Your task to perform on an android device: Search for razer naga on target, select the first entry, add it to the cart, then select checkout. Image 0: 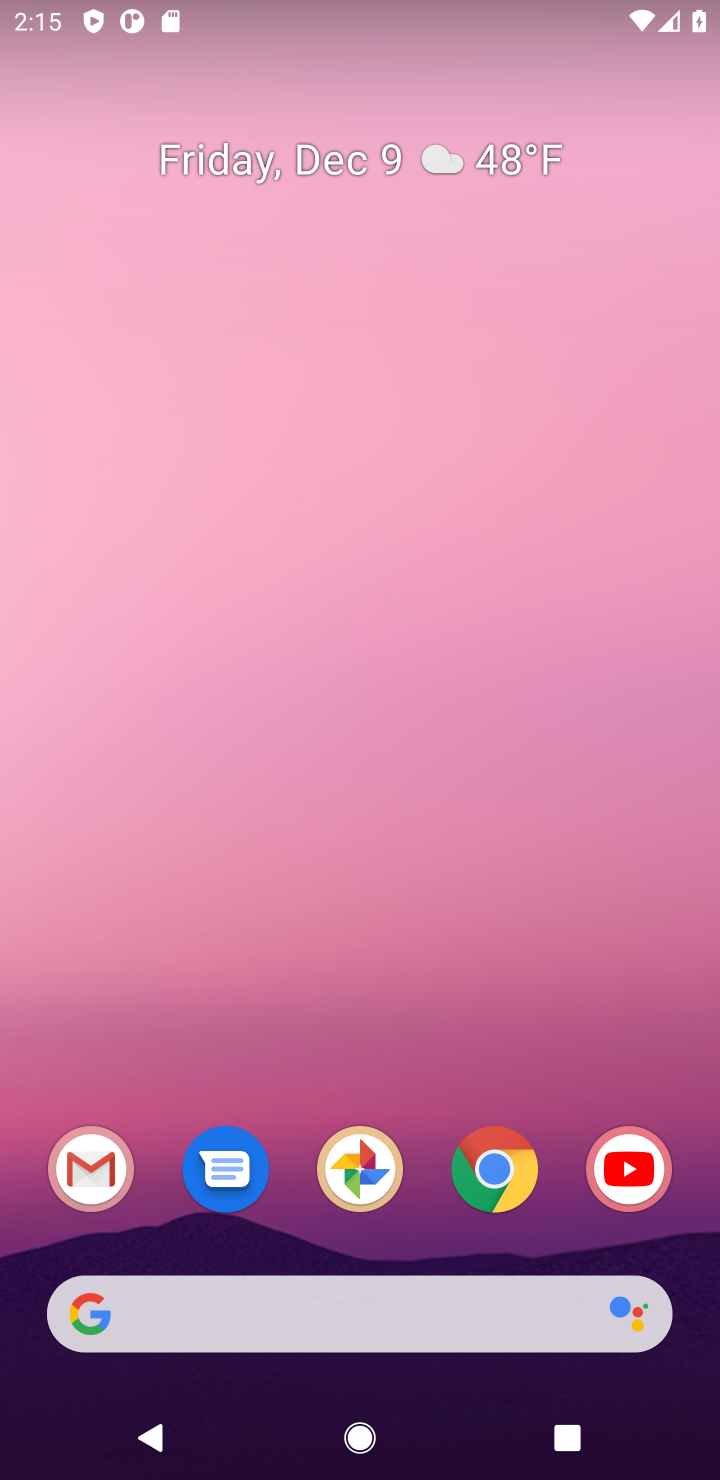
Step 0: click (495, 1162)
Your task to perform on an android device: Search for razer naga on target, select the first entry, add it to the cart, then select checkout. Image 1: 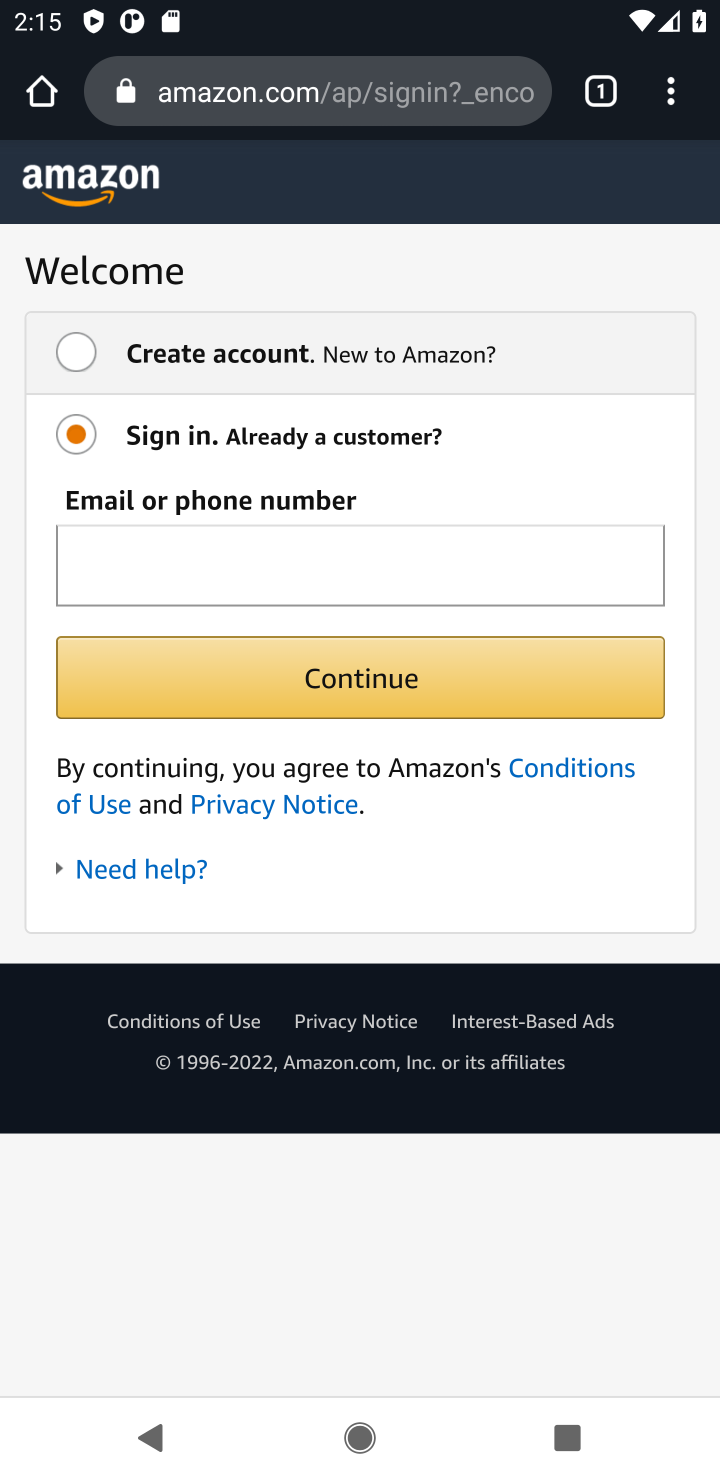
Step 1: click (266, 85)
Your task to perform on an android device: Search for razer naga on target, select the first entry, add it to the cart, then select checkout. Image 2: 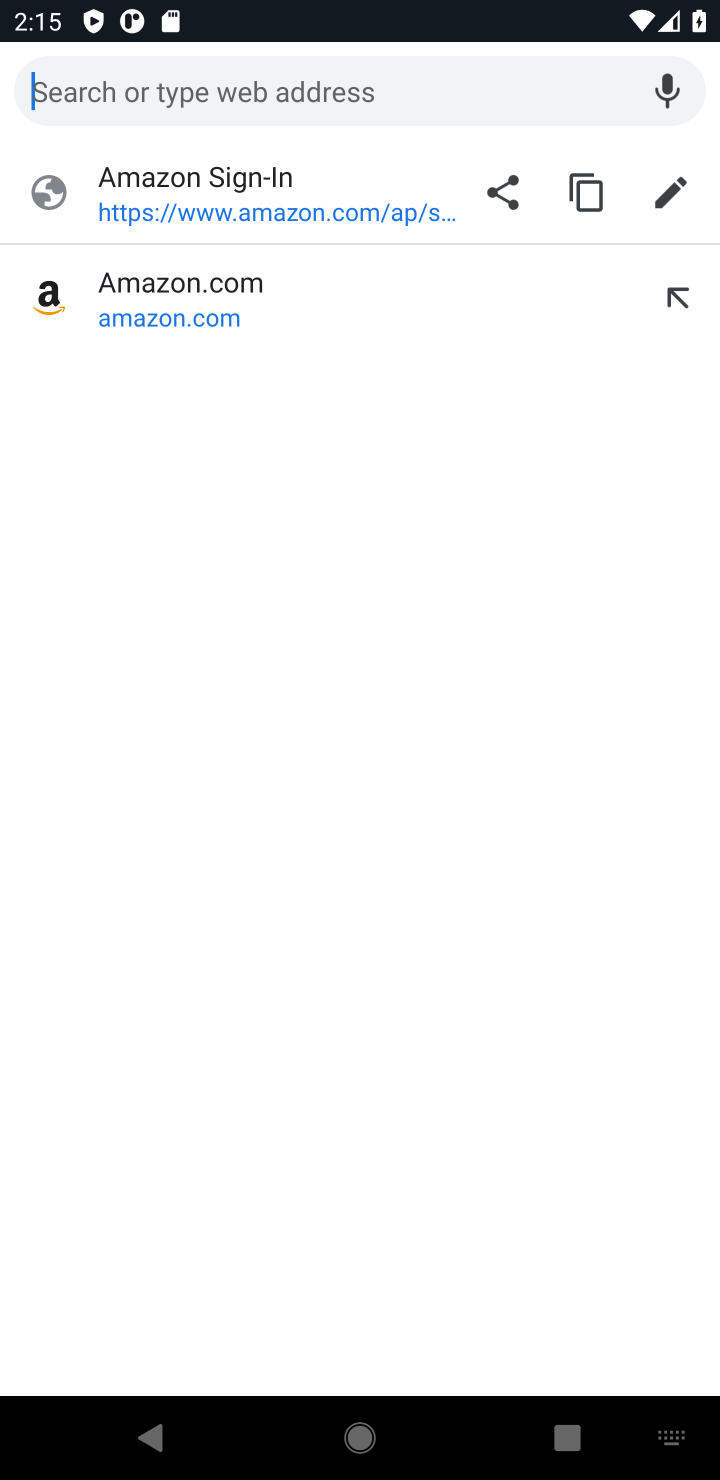
Step 2: press enter
Your task to perform on an android device: Search for razer naga on target, select the first entry, add it to the cart, then select checkout. Image 3: 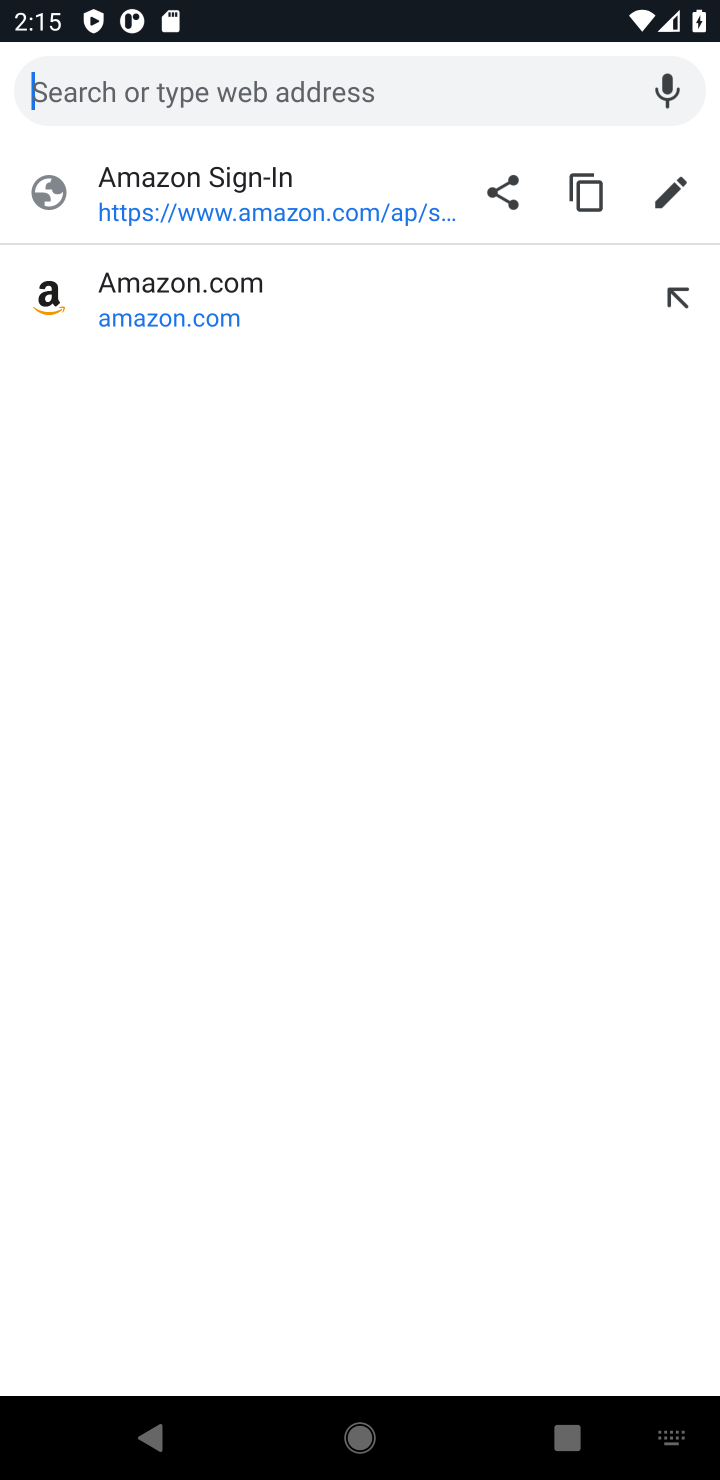
Step 3: type "target"
Your task to perform on an android device: Search for razer naga on target, select the first entry, add it to the cart, then select checkout. Image 4: 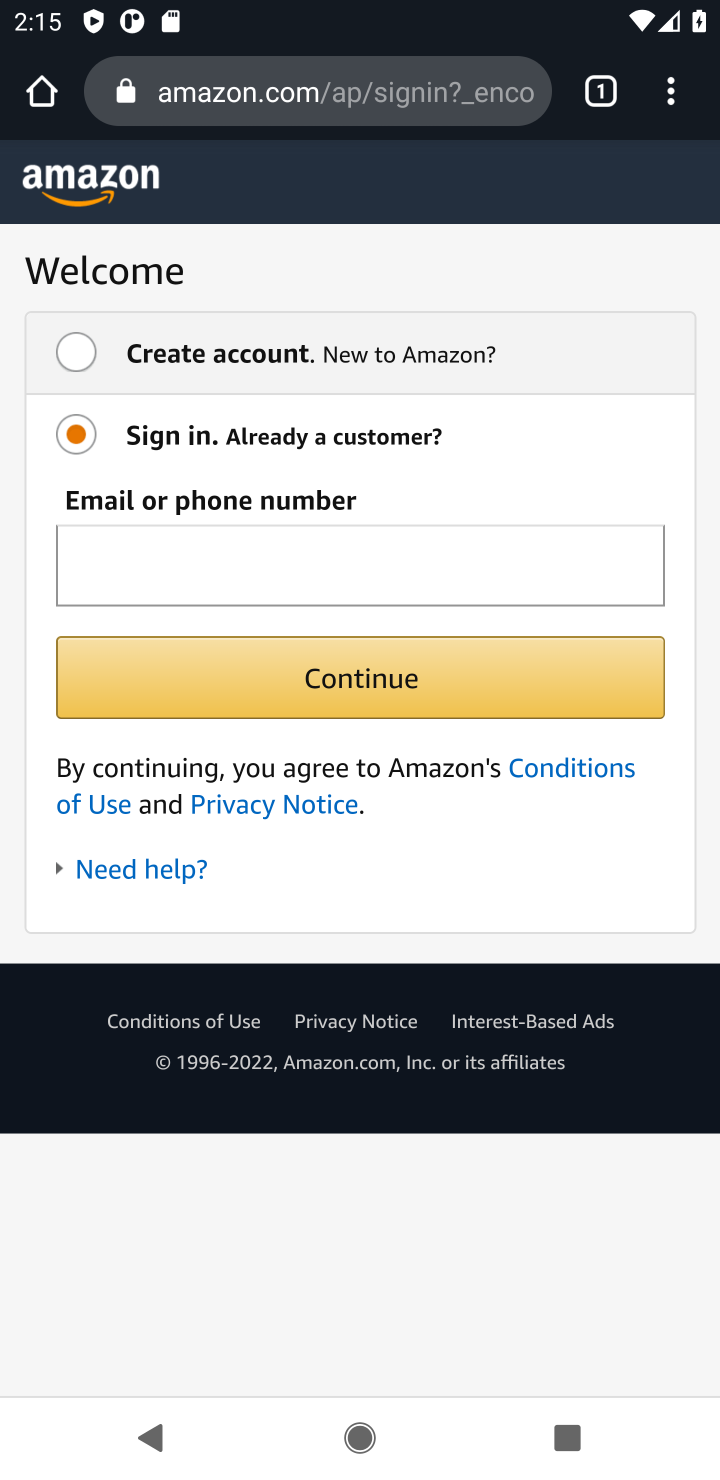
Step 4: click (35, 96)
Your task to perform on an android device: Search for razer naga on target, select the first entry, add it to the cart, then select checkout. Image 5: 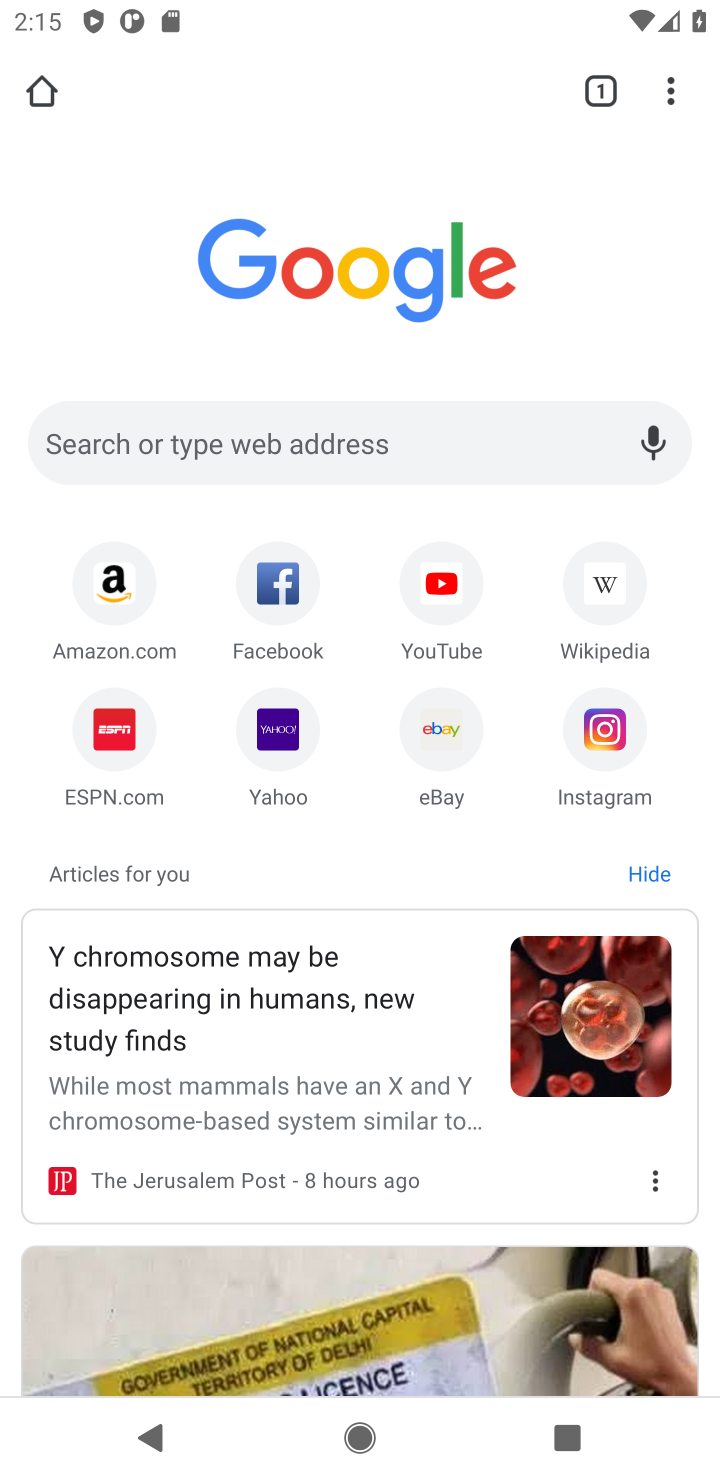
Step 5: click (501, 434)
Your task to perform on an android device: Search for razer naga on target, select the first entry, add it to the cart, then select checkout. Image 6: 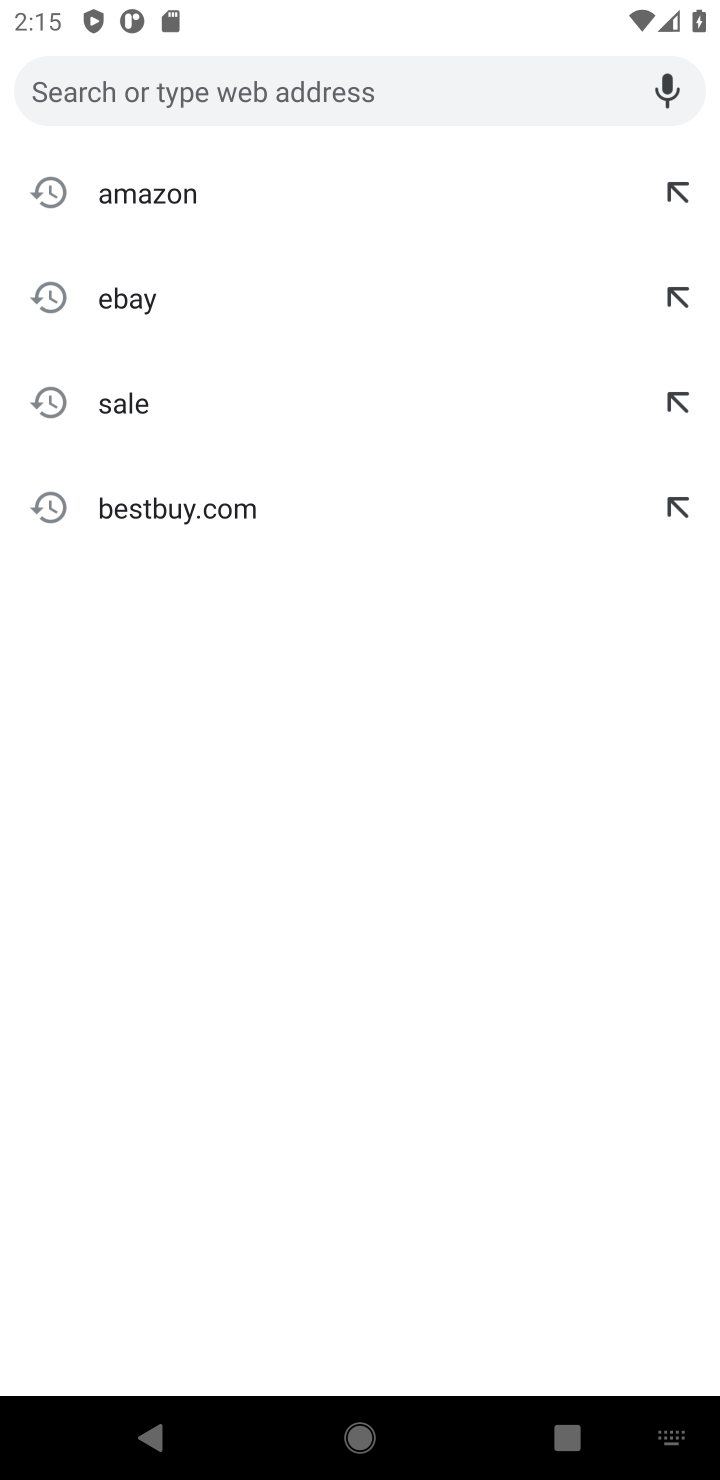
Step 6: press enter
Your task to perform on an android device: Search for razer naga on target, select the first entry, add it to the cart, then select checkout. Image 7: 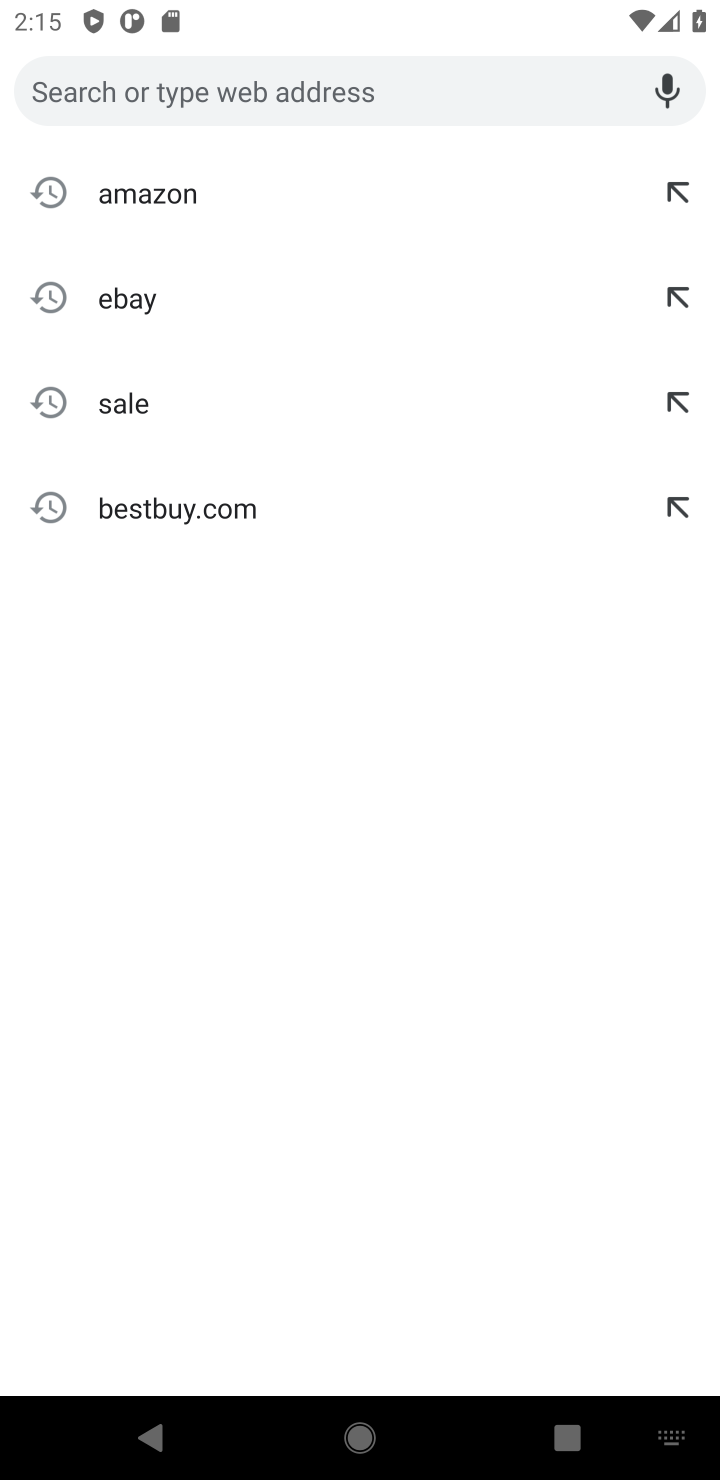
Step 7: type "target"
Your task to perform on an android device: Search for razer naga on target, select the first entry, add it to the cart, then select checkout. Image 8: 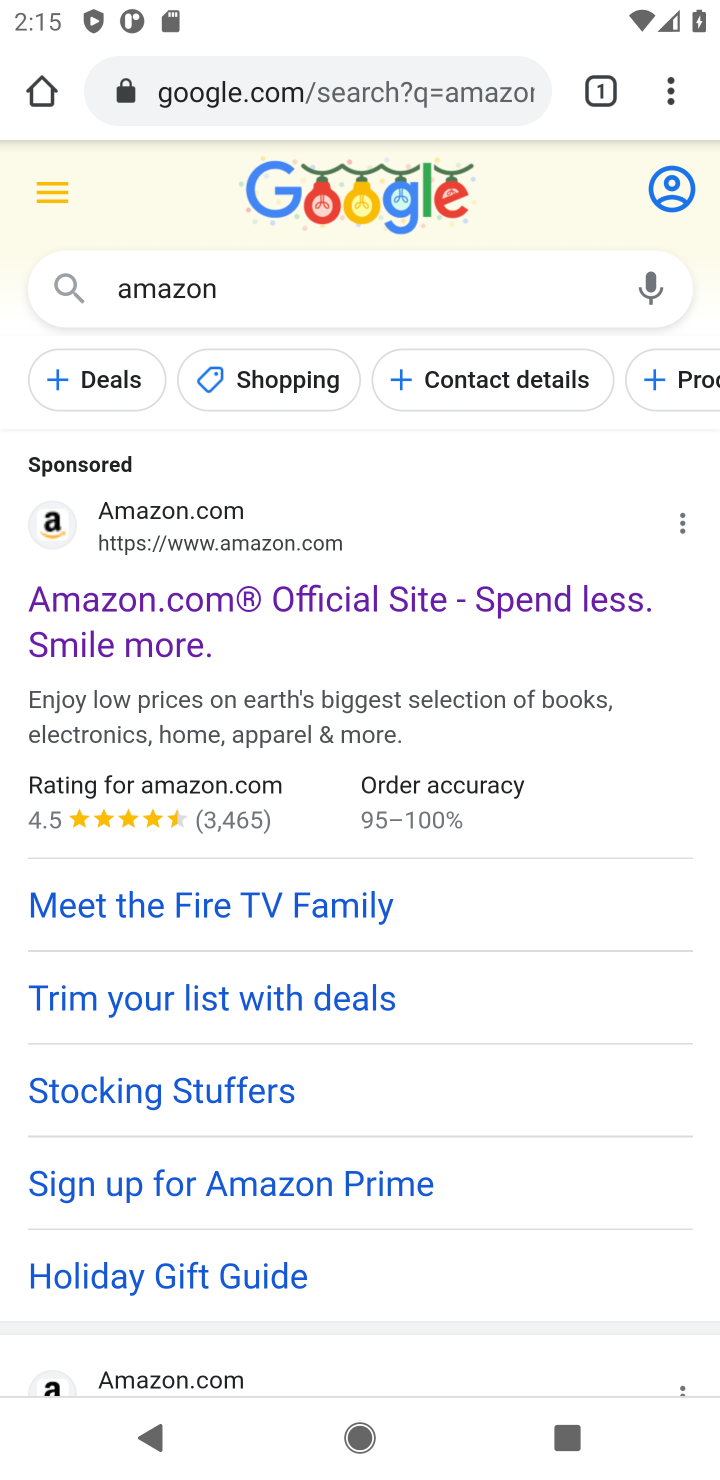
Step 8: click (356, 97)
Your task to perform on an android device: Search for razer naga on target, select the first entry, add it to the cart, then select checkout. Image 9: 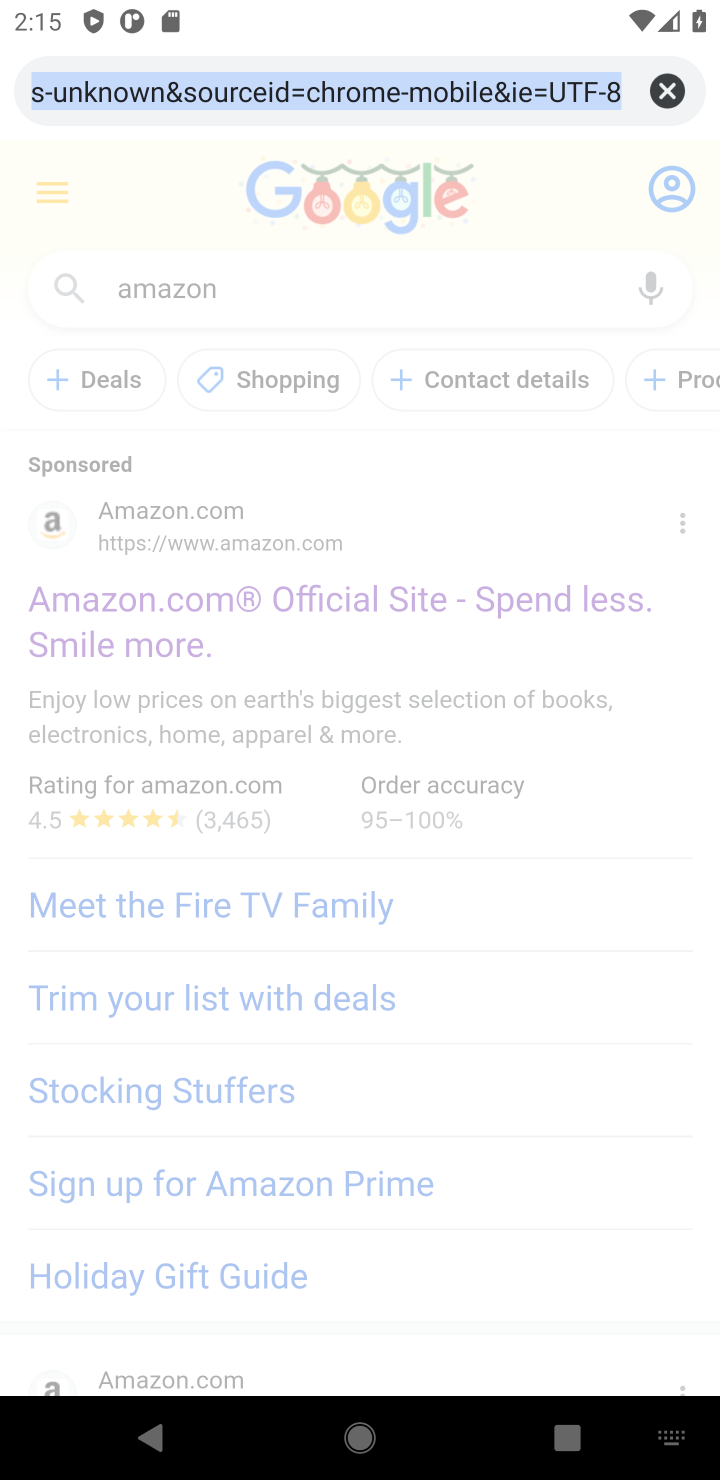
Step 9: press enter
Your task to perform on an android device: Search for razer naga on target, select the first entry, add it to the cart, then select checkout. Image 10: 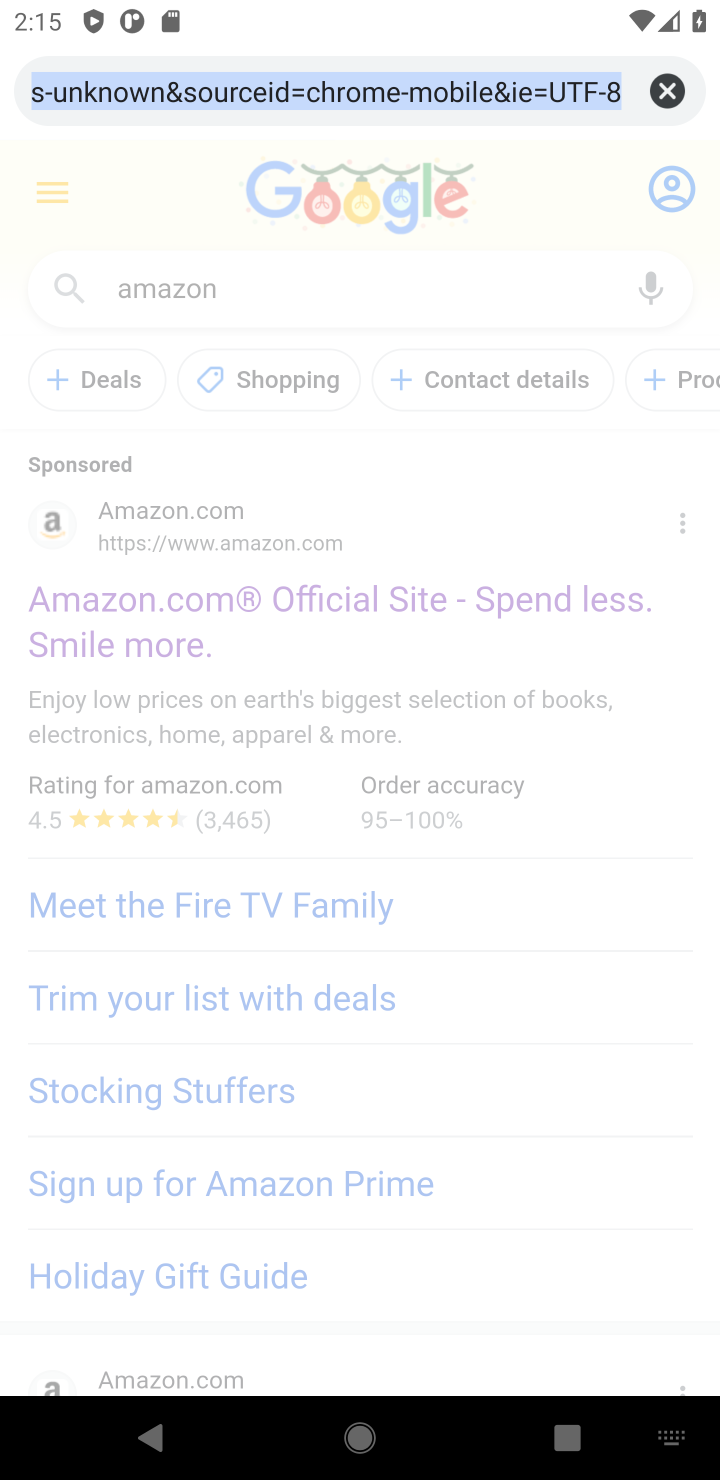
Step 10: type "target"
Your task to perform on an android device: Search for razer naga on target, select the first entry, add it to the cart, then select checkout. Image 11: 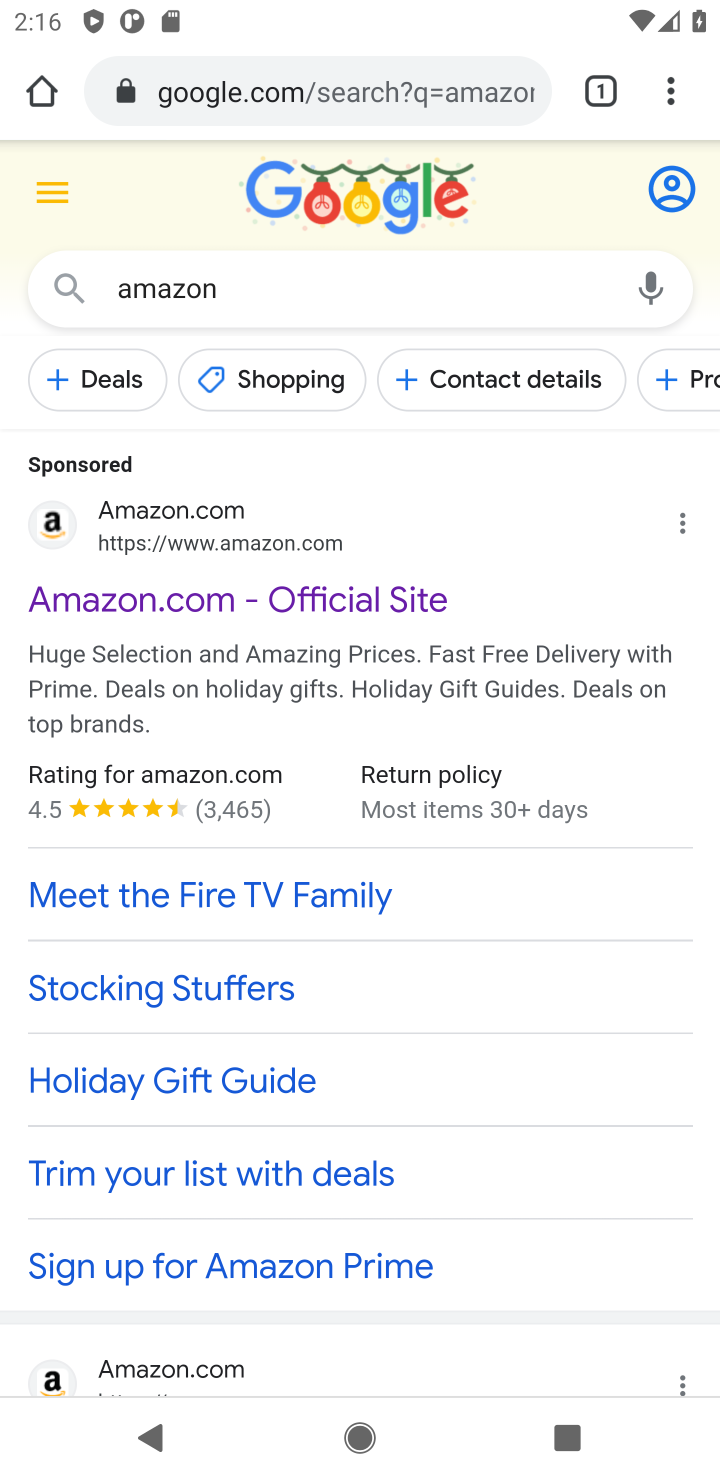
Step 11: click (46, 101)
Your task to perform on an android device: Search for razer naga on target, select the first entry, add it to the cart, then select checkout. Image 12: 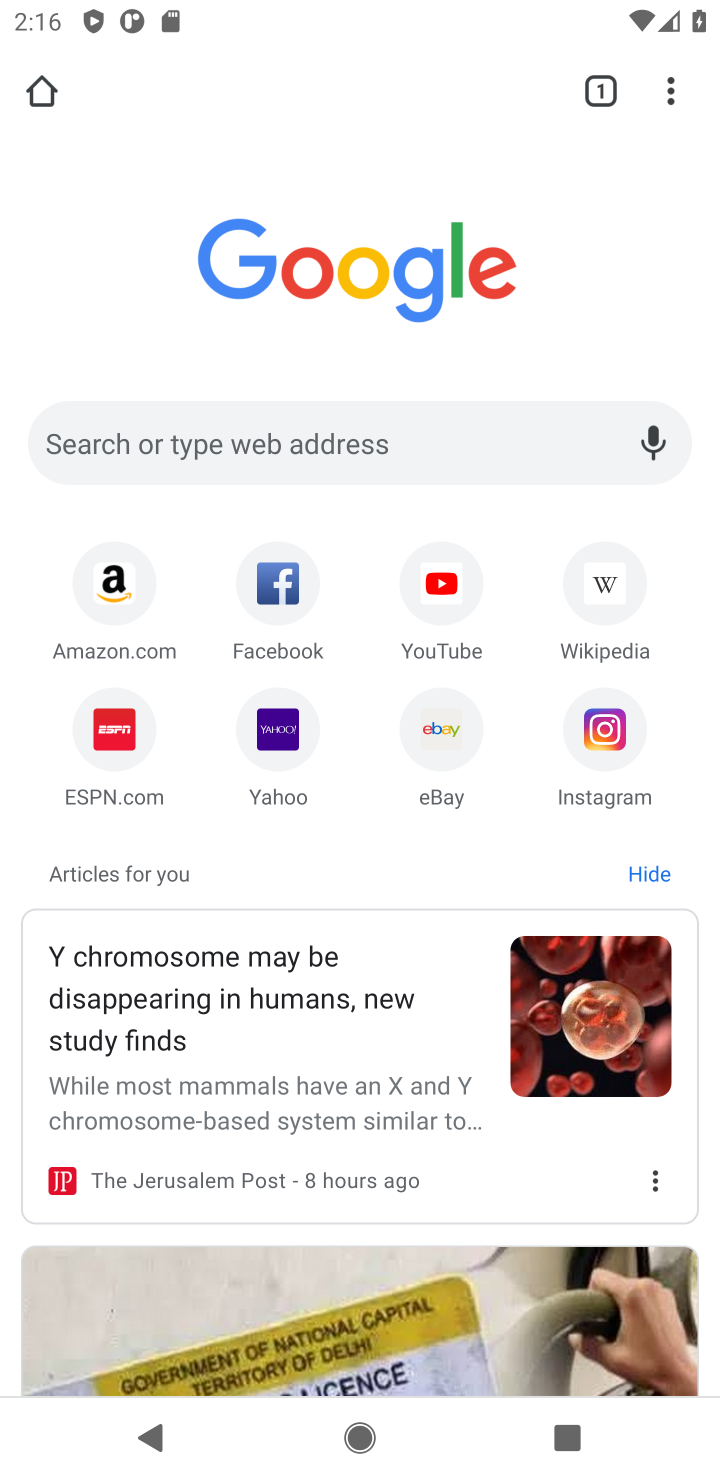
Step 12: click (370, 440)
Your task to perform on an android device: Search for razer naga on target, select the first entry, add it to the cart, then select checkout. Image 13: 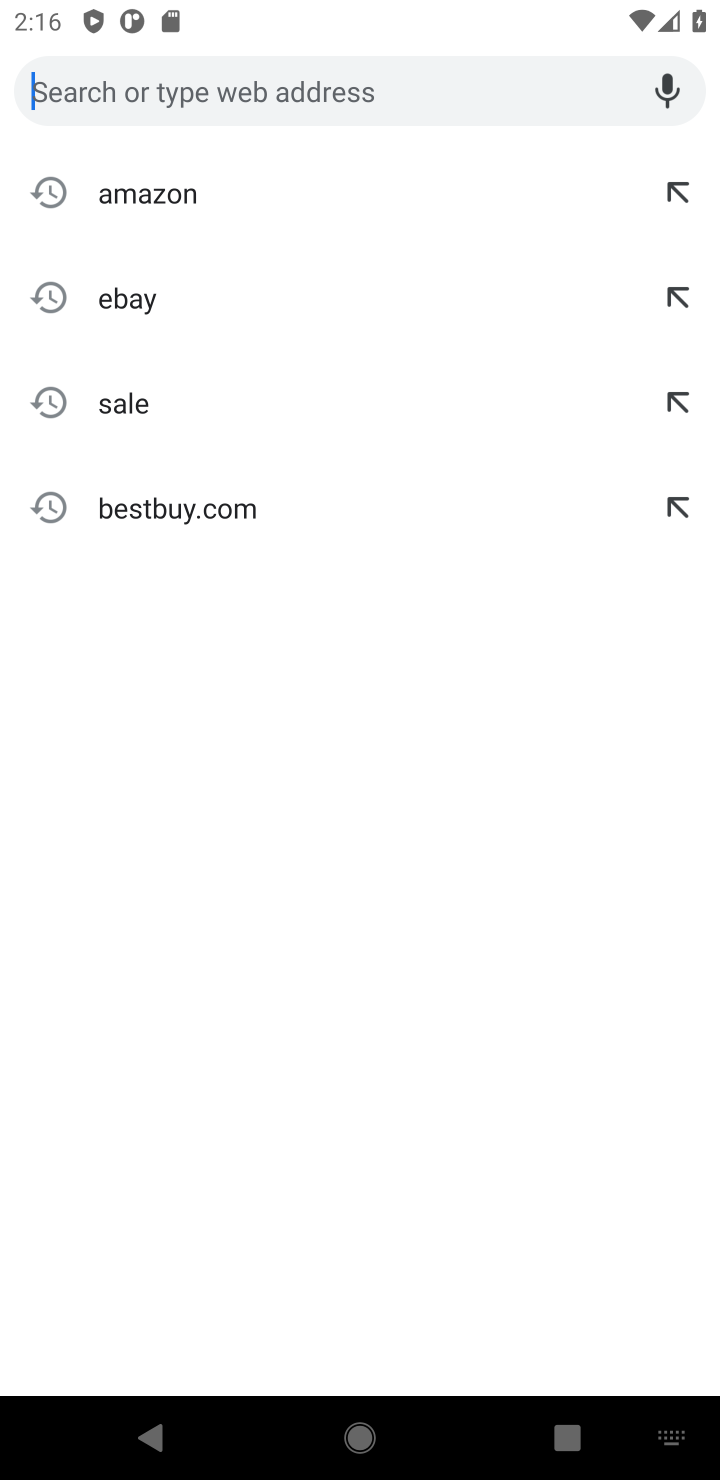
Step 13: press enter
Your task to perform on an android device: Search for razer naga on target, select the first entry, add it to the cart, then select checkout. Image 14: 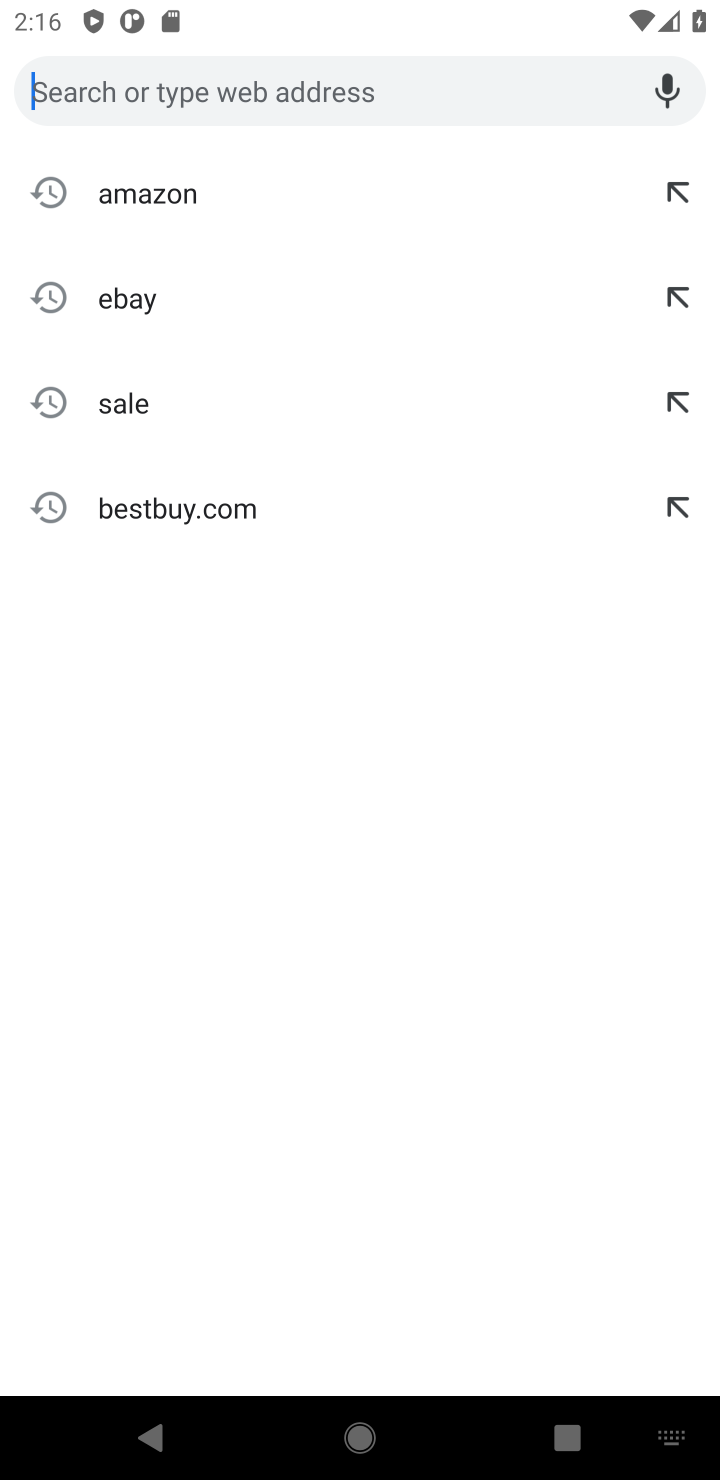
Step 14: type "target"
Your task to perform on an android device: Search for razer naga on target, select the first entry, add it to the cart, then select checkout. Image 15: 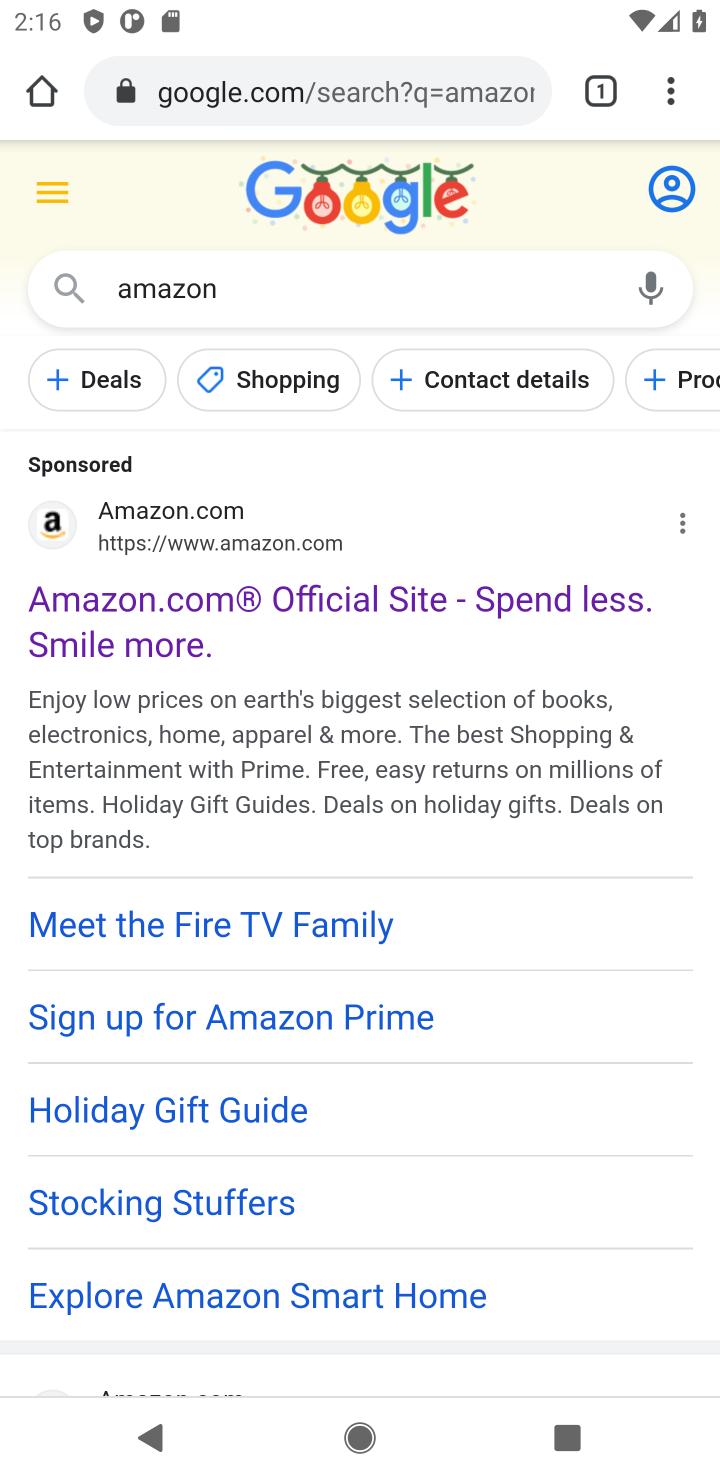
Step 15: task complete